Your task to perform on an android device: Go to location settings Image 0: 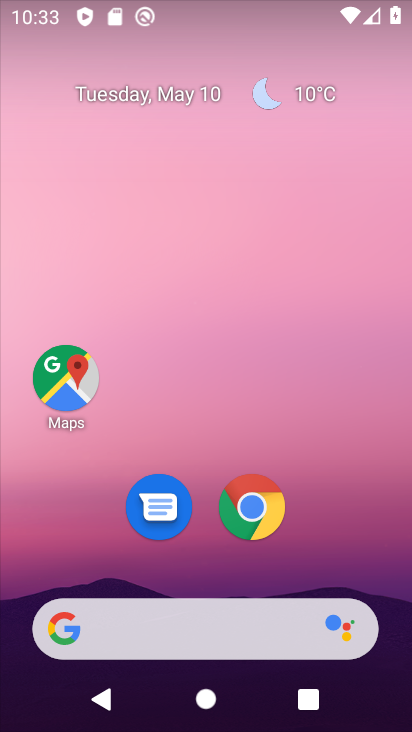
Step 0: drag from (224, 729) to (224, 115)
Your task to perform on an android device: Go to location settings Image 1: 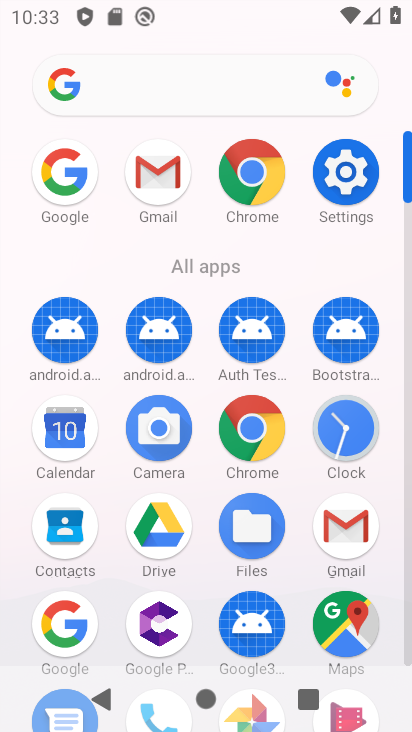
Step 1: click (349, 180)
Your task to perform on an android device: Go to location settings Image 2: 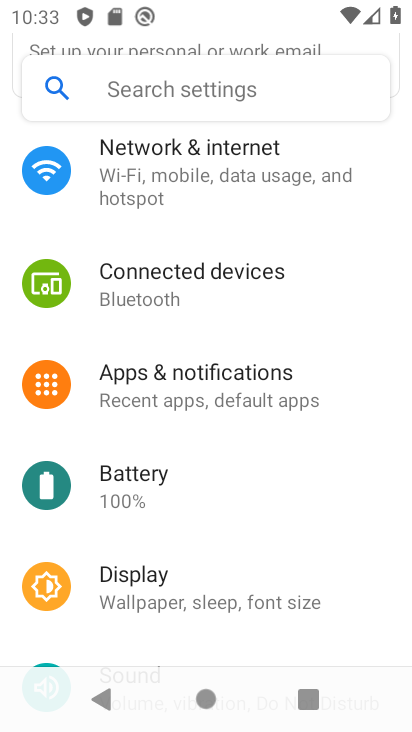
Step 2: drag from (184, 636) to (181, 273)
Your task to perform on an android device: Go to location settings Image 3: 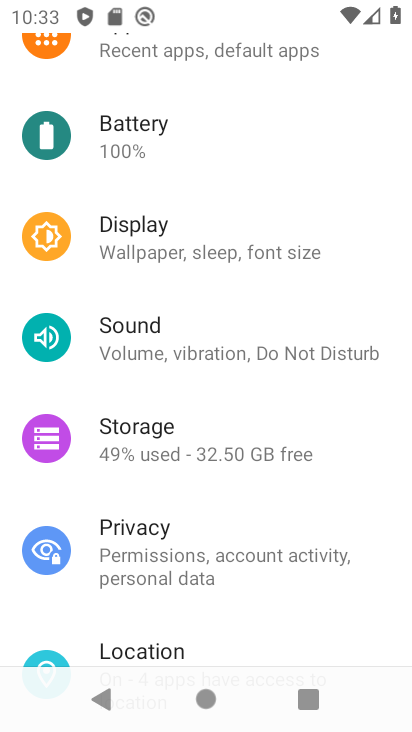
Step 3: drag from (172, 627) to (172, 323)
Your task to perform on an android device: Go to location settings Image 4: 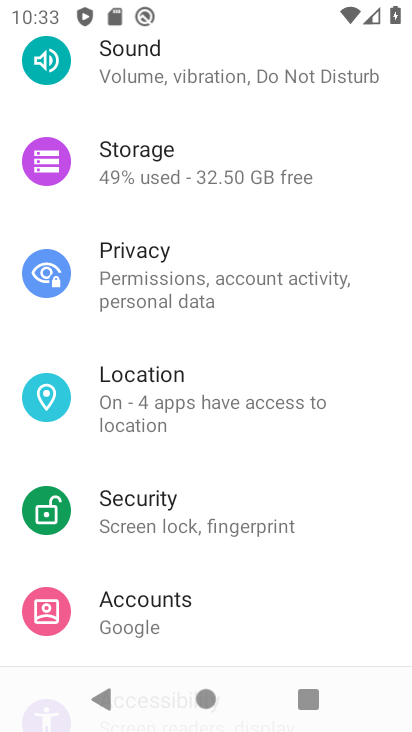
Step 4: click (169, 395)
Your task to perform on an android device: Go to location settings Image 5: 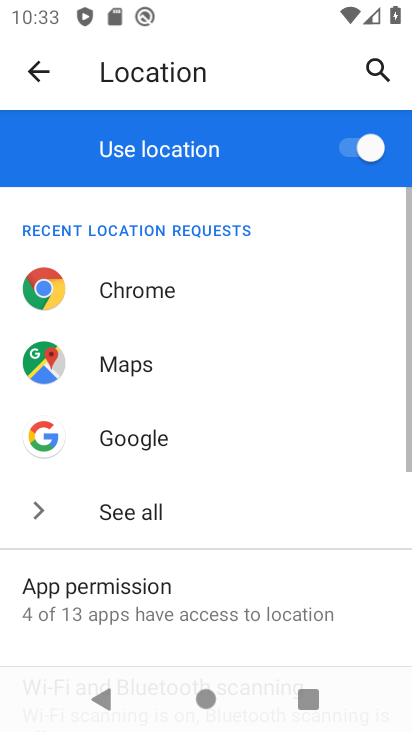
Step 5: task complete